Your task to perform on an android device: Turn on the flashlight Image 0: 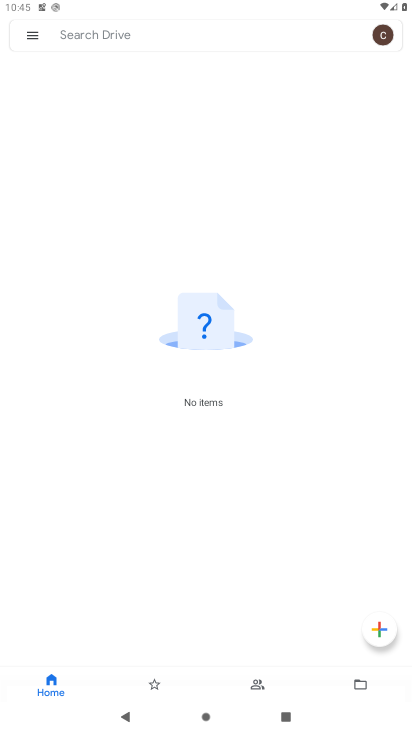
Step 0: press home button
Your task to perform on an android device: Turn on the flashlight Image 1: 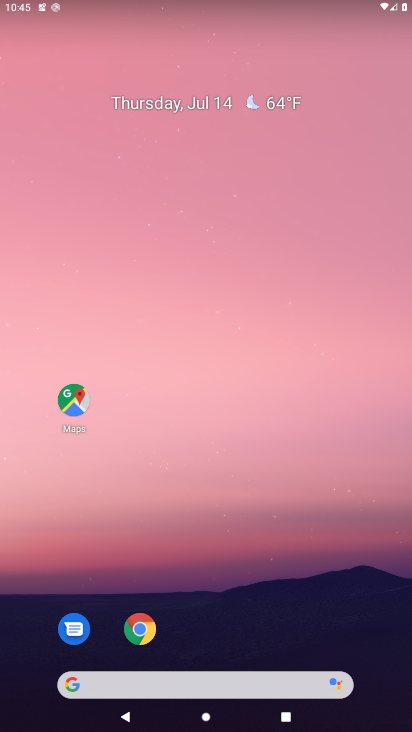
Step 1: drag from (209, 6) to (231, 529)
Your task to perform on an android device: Turn on the flashlight Image 2: 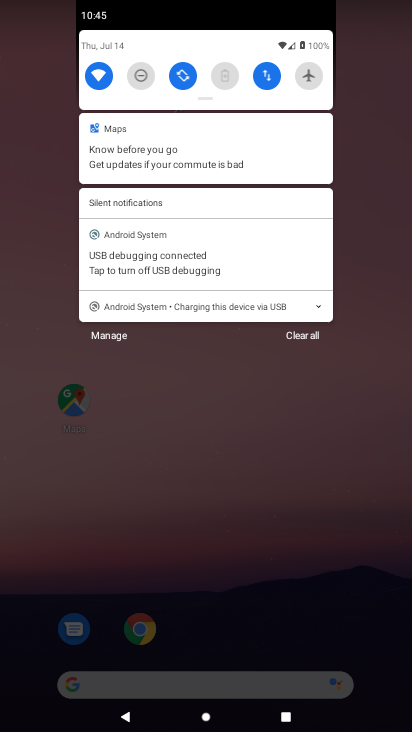
Step 2: drag from (253, 93) to (283, 620)
Your task to perform on an android device: Turn on the flashlight Image 3: 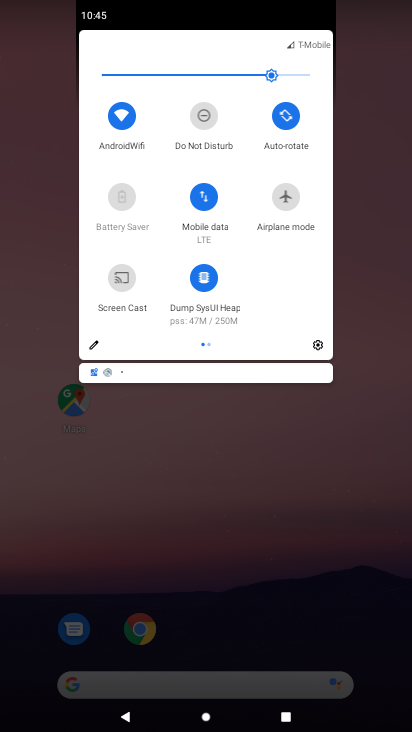
Step 3: drag from (300, 301) to (5, 288)
Your task to perform on an android device: Turn on the flashlight Image 4: 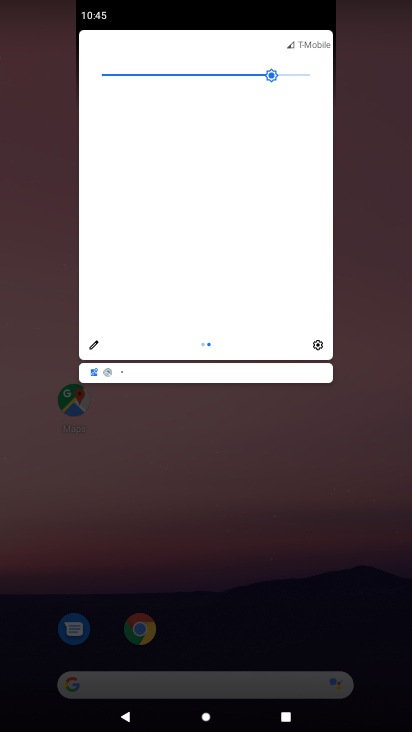
Step 4: click (98, 342)
Your task to perform on an android device: Turn on the flashlight Image 5: 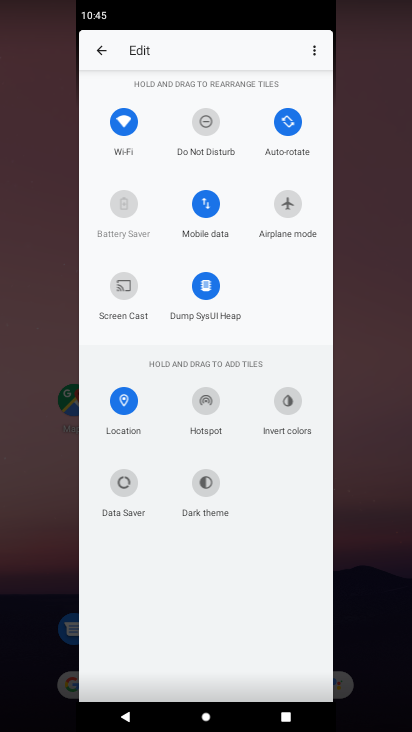
Step 5: task complete